Your task to perform on an android device: Open Google Maps and go to "Timeline" Image 0: 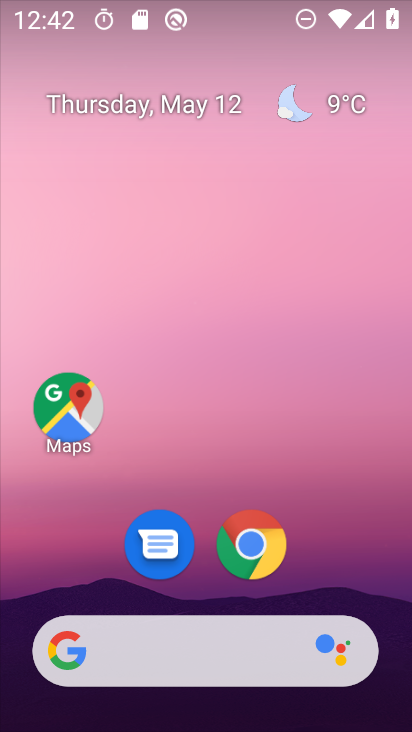
Step 0: drag from (176, 716) to (166, 237)
Your task to perform on an android device: Open Google Maps and go to "Timeline" Image 1: 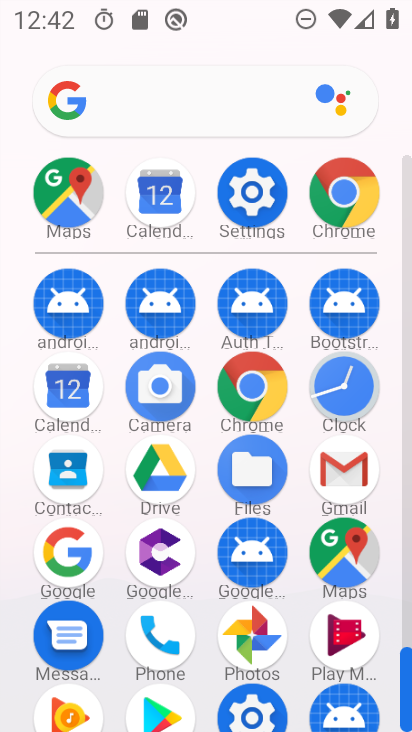
Step 1: click (341, 541)
Your task to perform on an android device: Open Google Maps and go to "Timeline" Image 2: 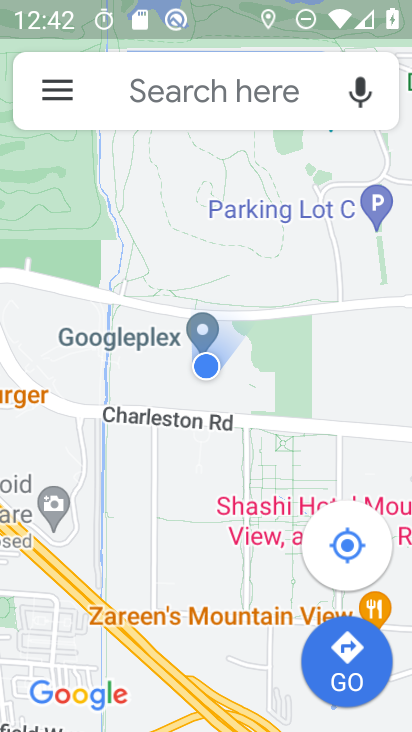
Step 2: click (54, 81)
Your task to perform on an android device: Open Google Maps and go to "Timeline" Image 3: 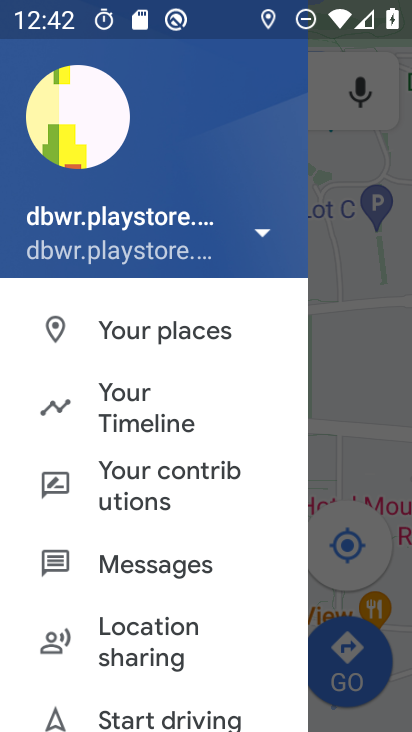
Step 3: click (149, 409)
Your task to perform on an android device: Open Google Maps and go to "Timeline" Image 4: 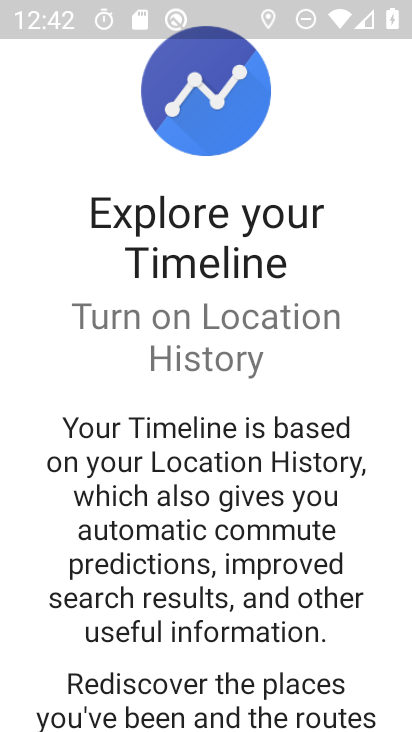
Step 4: drag from (186, 588) to (190, 231)
Your task to perform on an android device: Open Google Maps and go to "Timeline" Image 5: 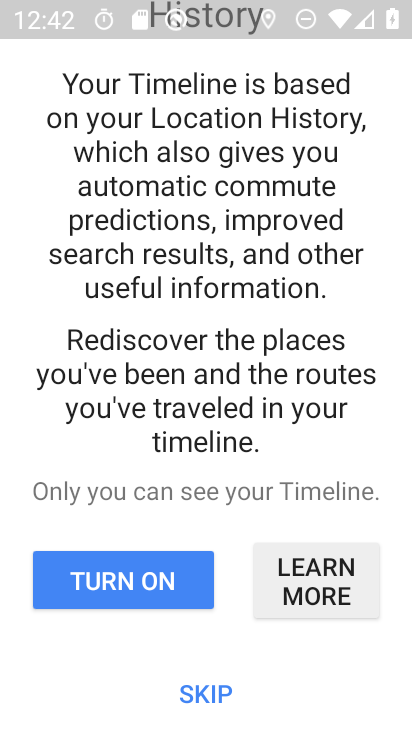
Step 5: click (210, 690)
Your task to perform on an android device: Open Google Maps and go to "Timeline" Image 6: 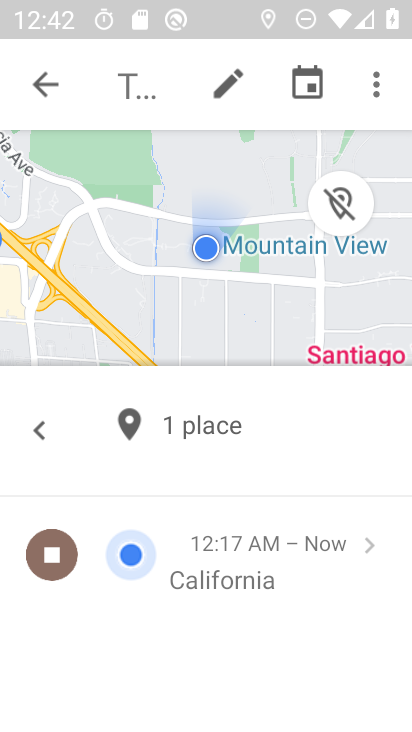
Step 6: task complete